Your task to perform on an android device: change notifications settings Image 0: 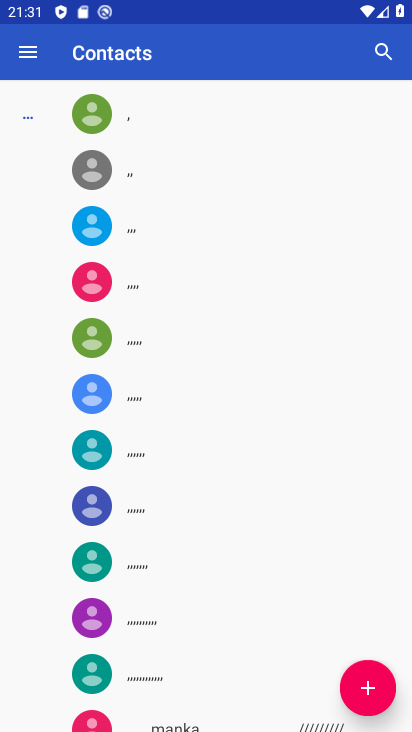
Step 0: press home button
Your task to perform on an android device: change notifications settings Image 1: 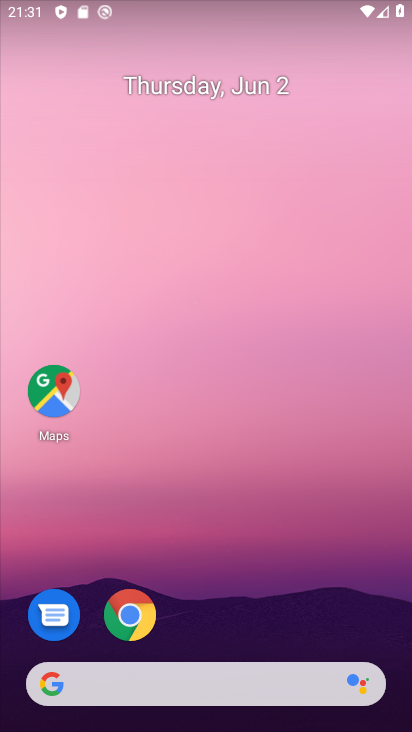
Step 1: drag from (199, 617) to (306, 156)
Your task to perform on an android device: change notifications settings Image 2: 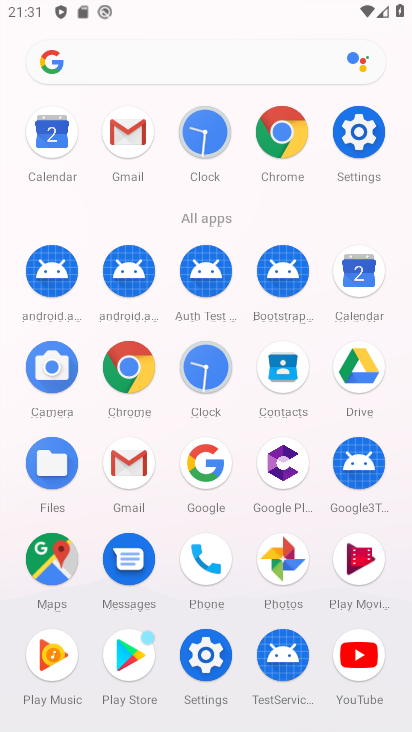
Step 2: click (206, 655)
Your task to perform on an android device: change notifications settings Image 3: 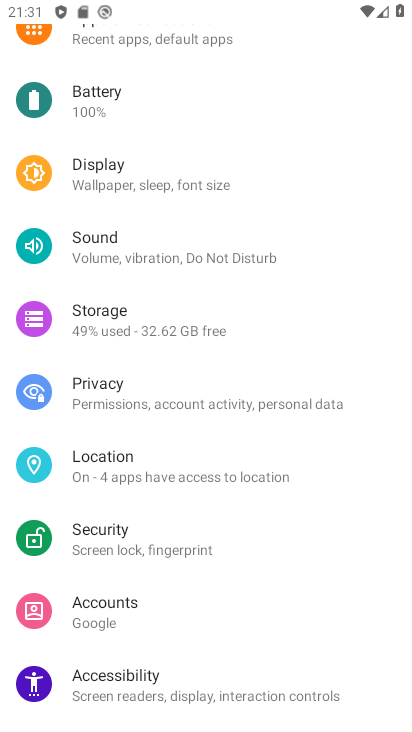
Step 3: drag from (246, 498) to (270, 729)
Your task to perform on an android device: change notifications settings Image 4: 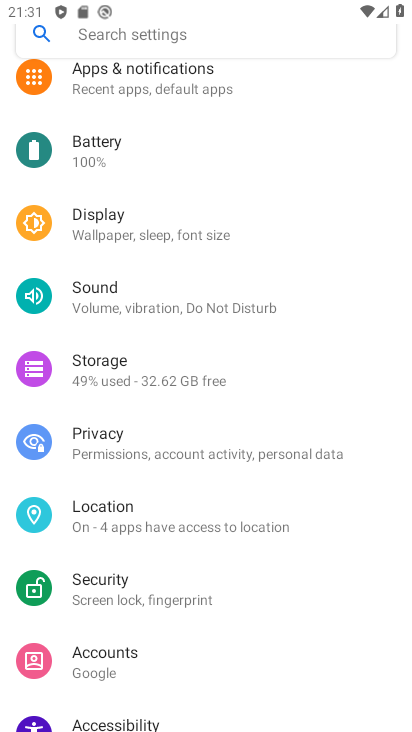
Step 4: click (204, 90)
Your task to perform on an android device: change notifications settings Image 5: 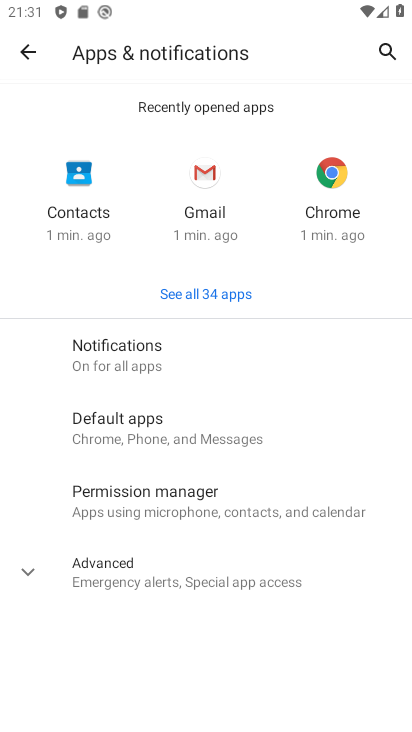
Step 5: task complete